Your task to perform on an android device: set the stopwatch Image 0: 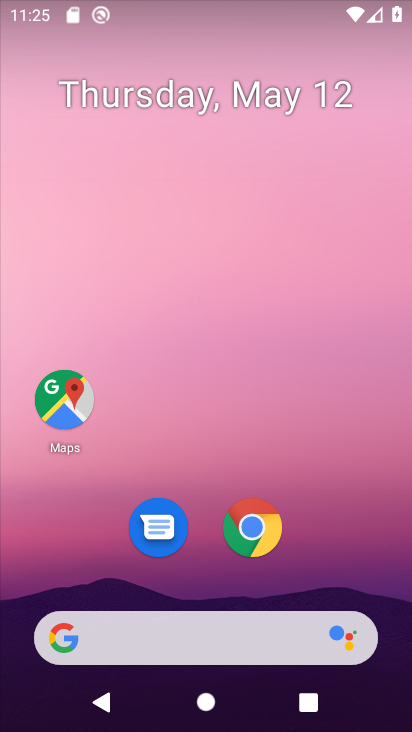
Step 0: drag from (315, 587) to (226, 22)
Your task to perform on an android device: set the stopwatch Image 1: 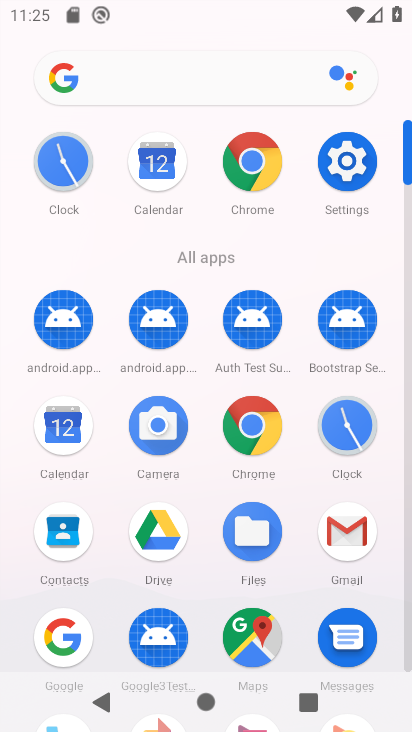
Step 1: click (354, 438)
Your task to perform on an android device: set the stopwatch Image 2: 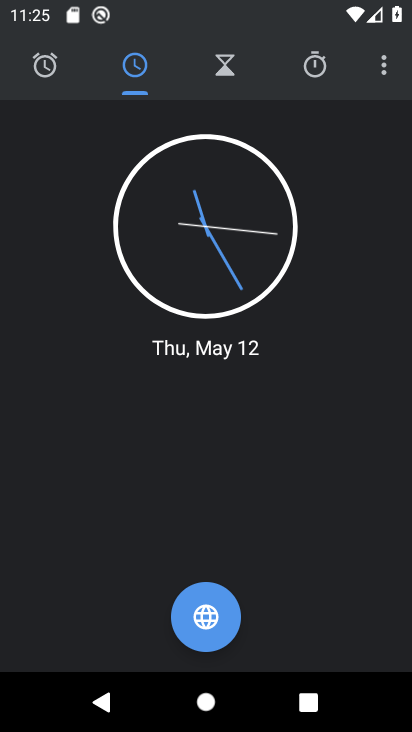
Step 2: click (314, 86)
Your task to perform on an android device: set the stopwatch Image 3: 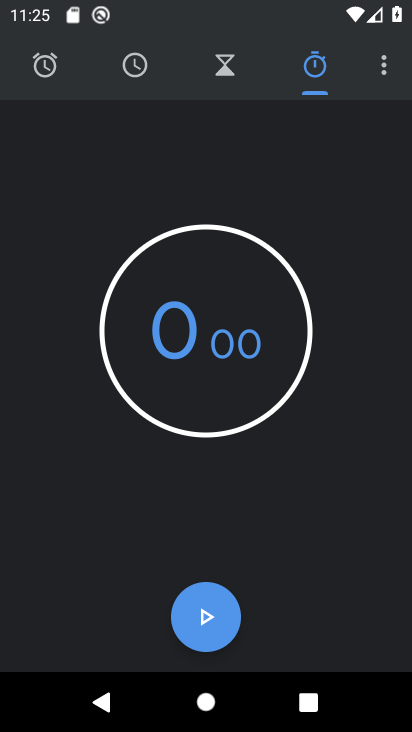
Step 3: click (214, 619)
Your task to perform on an android device: set the stopwatch Image 4: 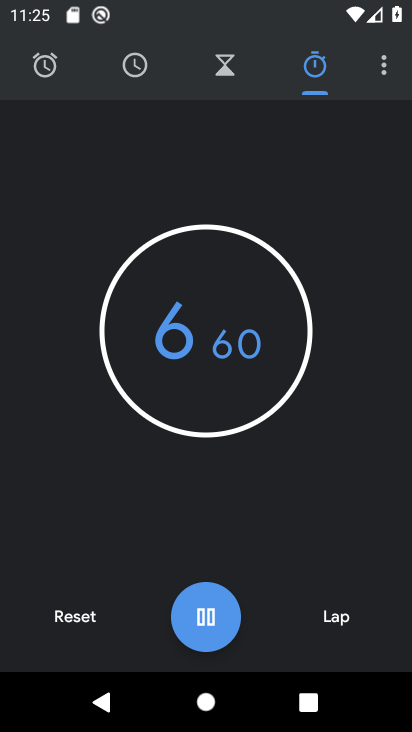
Step 4: click (228, 623)
Your task to perform on an android device: set the stopwatch Image 5: 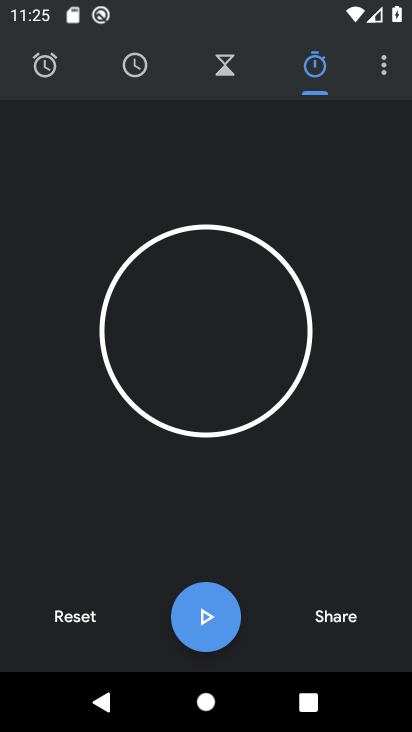
Step 5: task complete